Your task to perform on an android device: Go to accessibility settings Image 0: 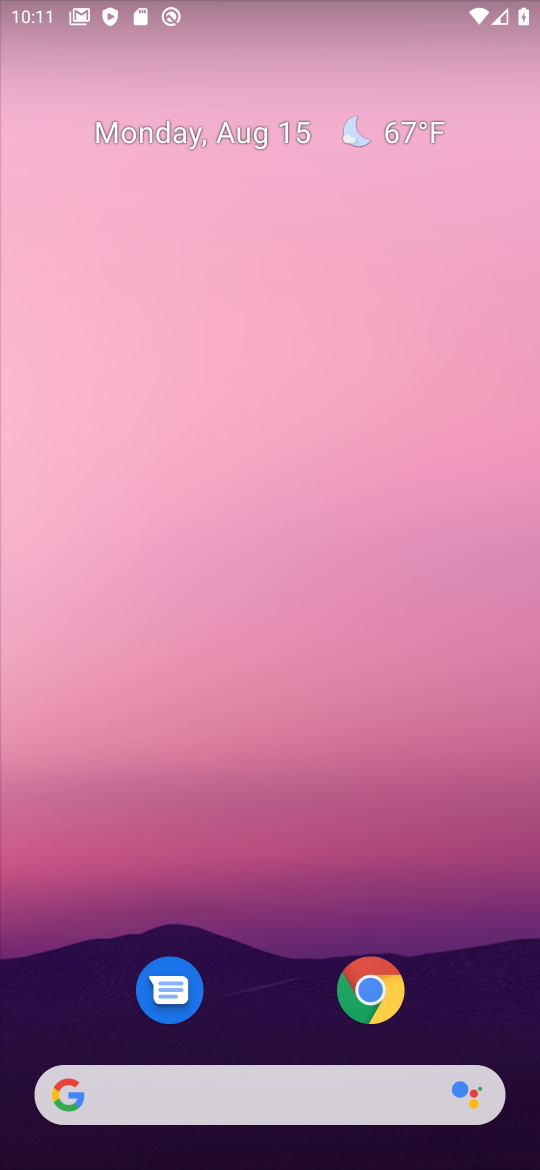
Step 0: drag from (248, 996) to (226, 142)
Your task to perform on an android device: Go to accessibility settings Image 1: 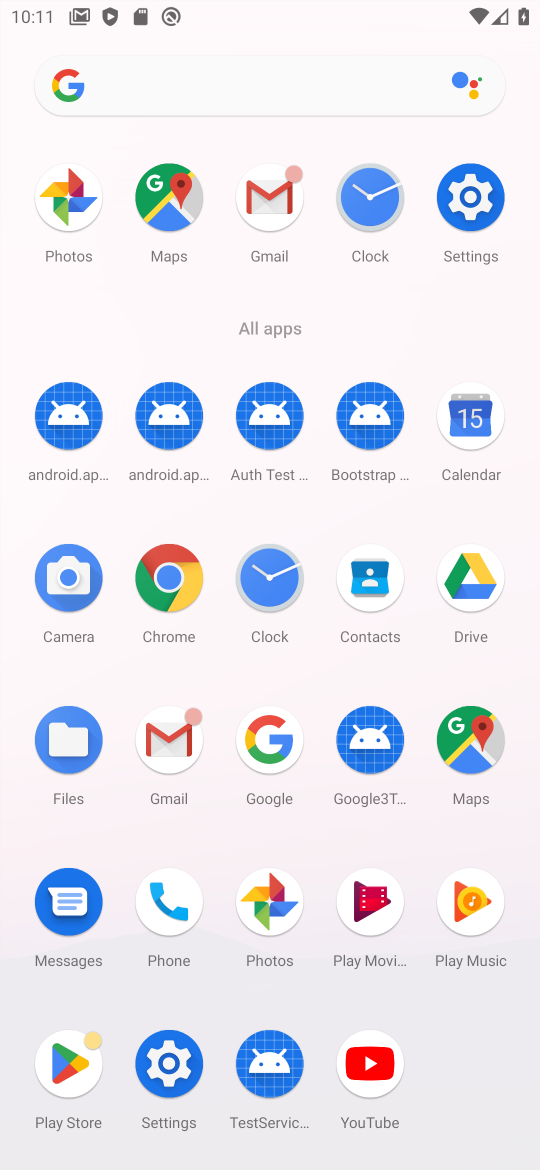
Step 1: click (470, 190)
Your task to perform on an android device: Go to accessibility settings Image 2: 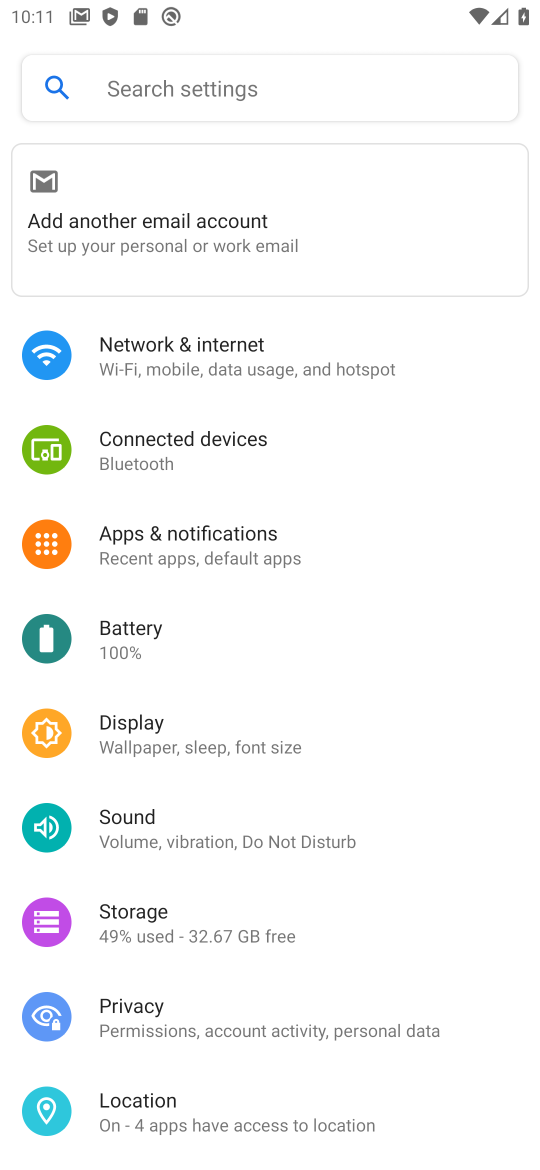
Step 2: drag from (321, 1064) to (329, 499)
Your task to perform on an android device: Go to accessibility settings Image 3: 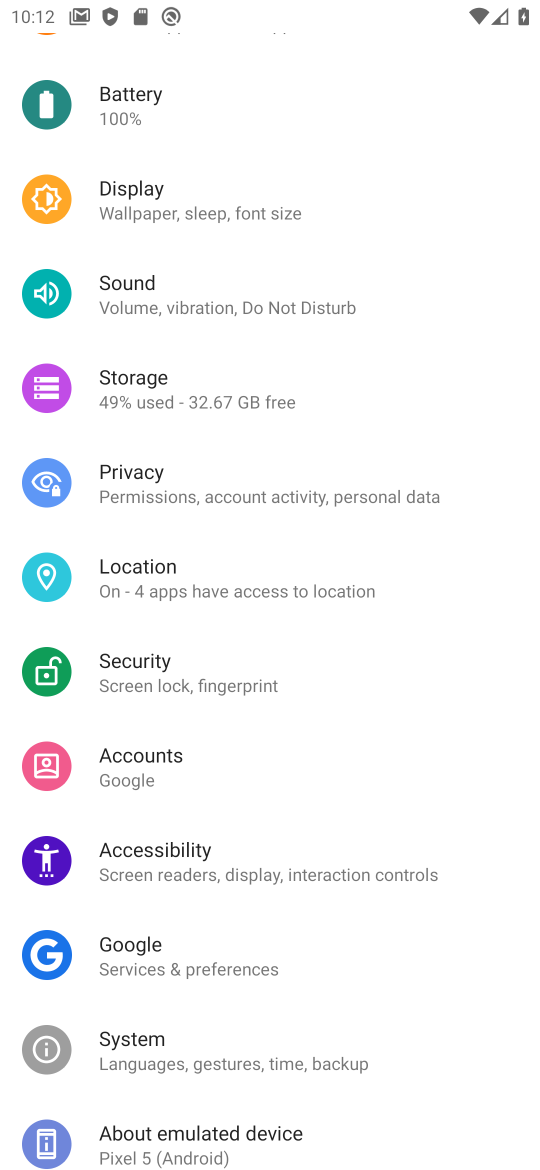
Step 3: click (169, 842)
Your task to perform on an android device: Go to accessibility settings Image 4: 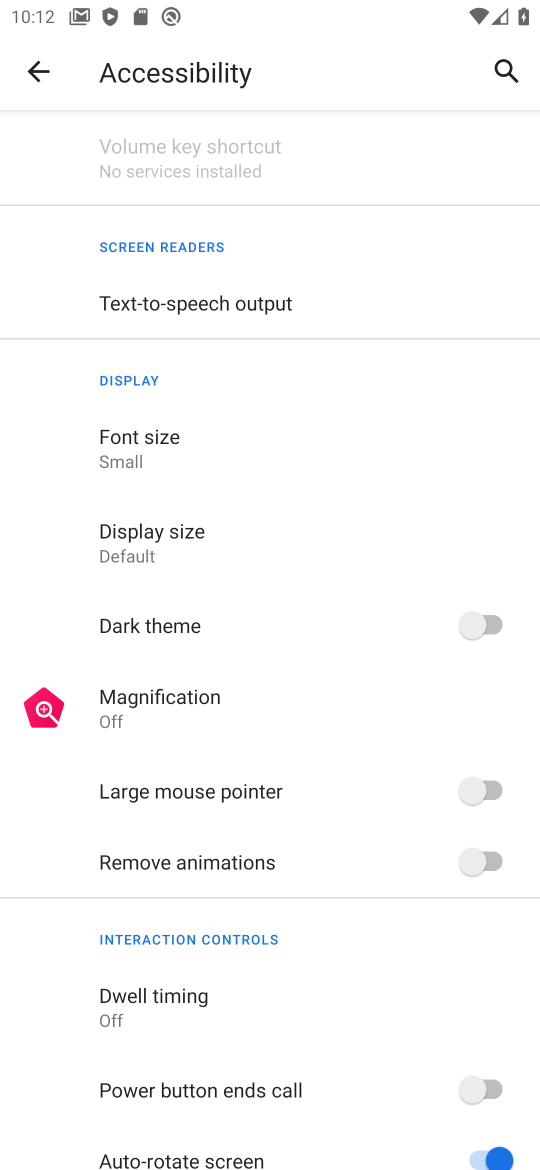
Step 4: task complete